Your task to perform on an android device: uninstall "Google Duo" Image 0: 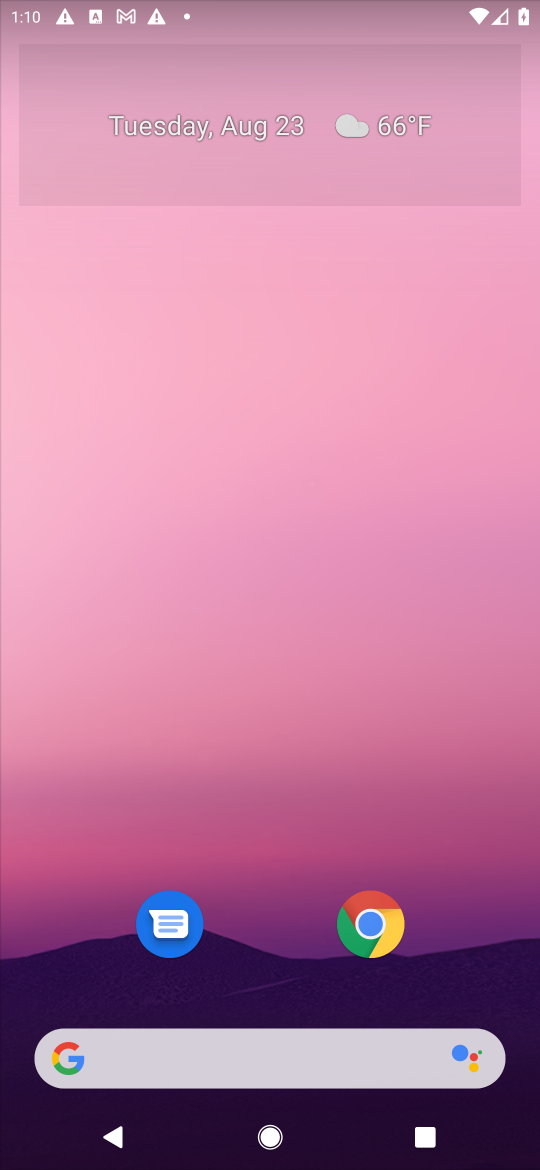
Step 0: press home button
Your task to perform on an android device: uninstall "Google Duo" Image 1: 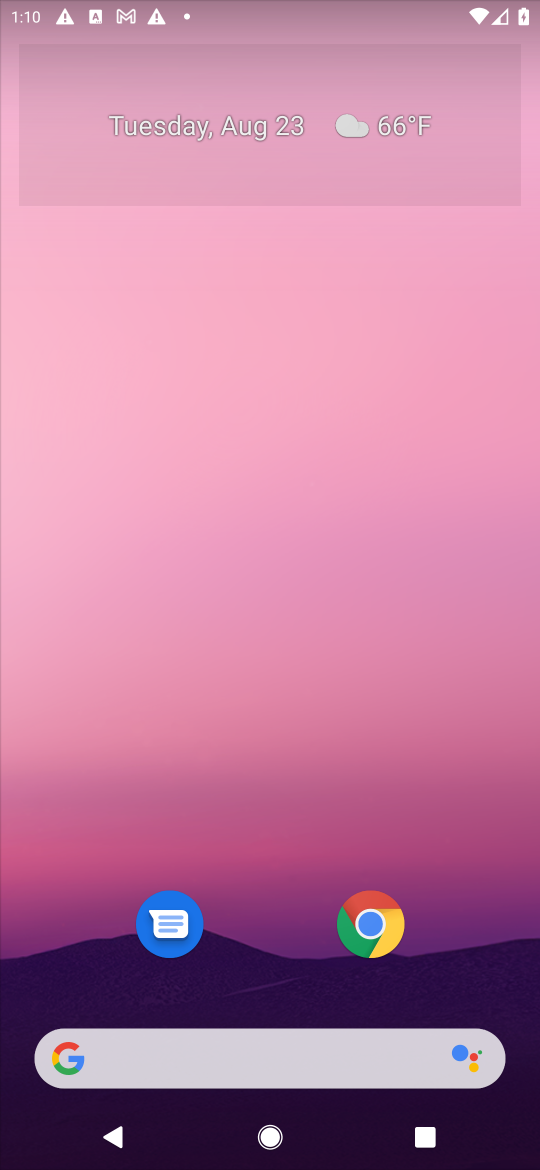
Step 1: drag from (462, 828) to (485, 114)
Your task to perform on an android device: uninstall "Google Duo" Image 2: 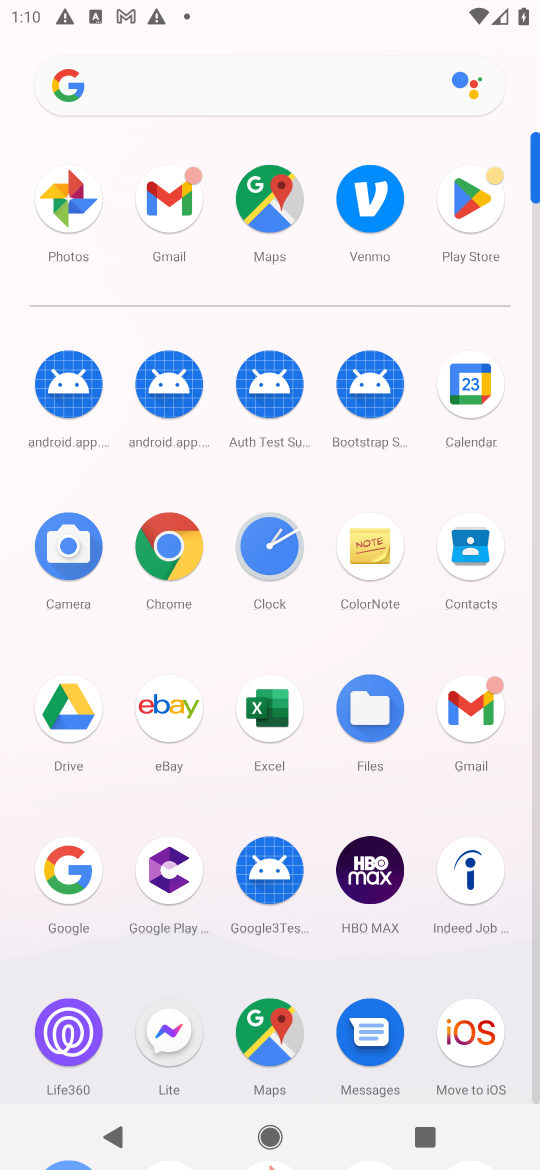
Step 2: click (474, 204)
Your task to perform on an android device: uninstall "Google Duo" Image 3: 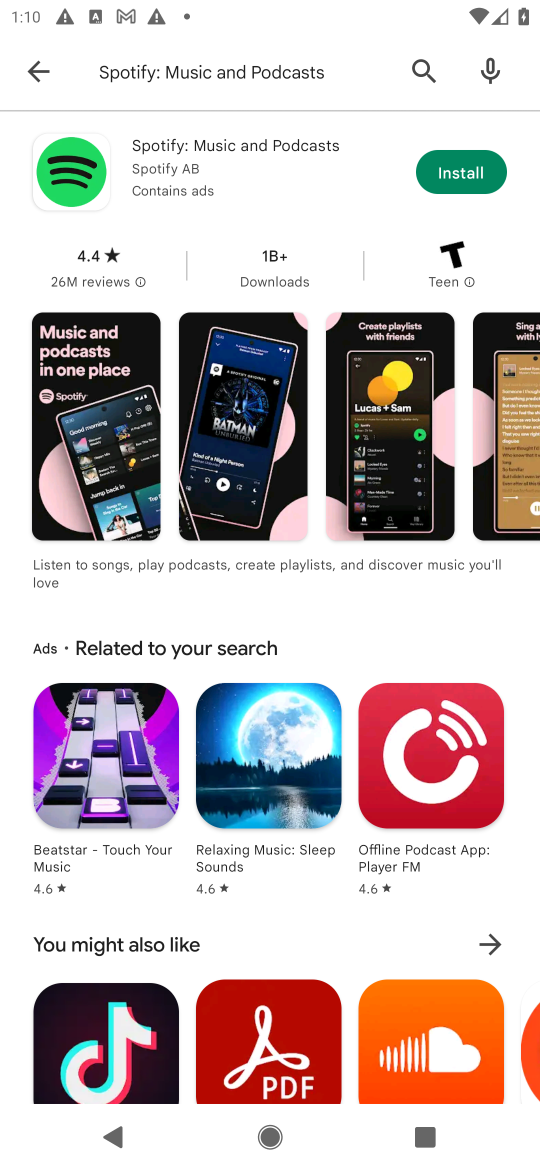
Step 3: press back button
Your task to perform on an android device: uninstall "Google Duo" Image 4: 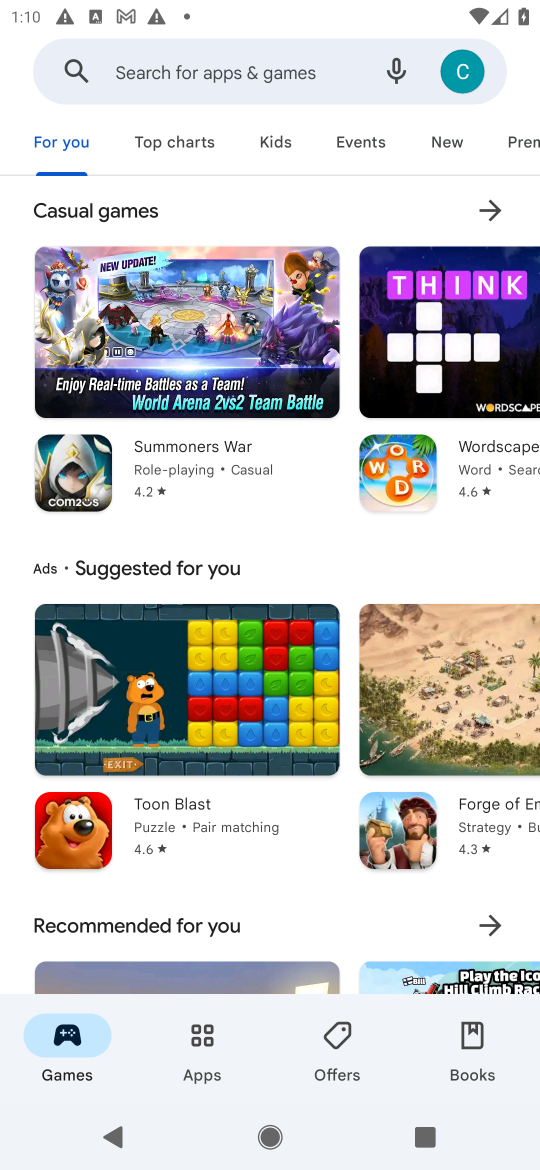
Step 4: click (166, 71)
Your task to perform on an android device: uninstall "Google Duo" Image 5: 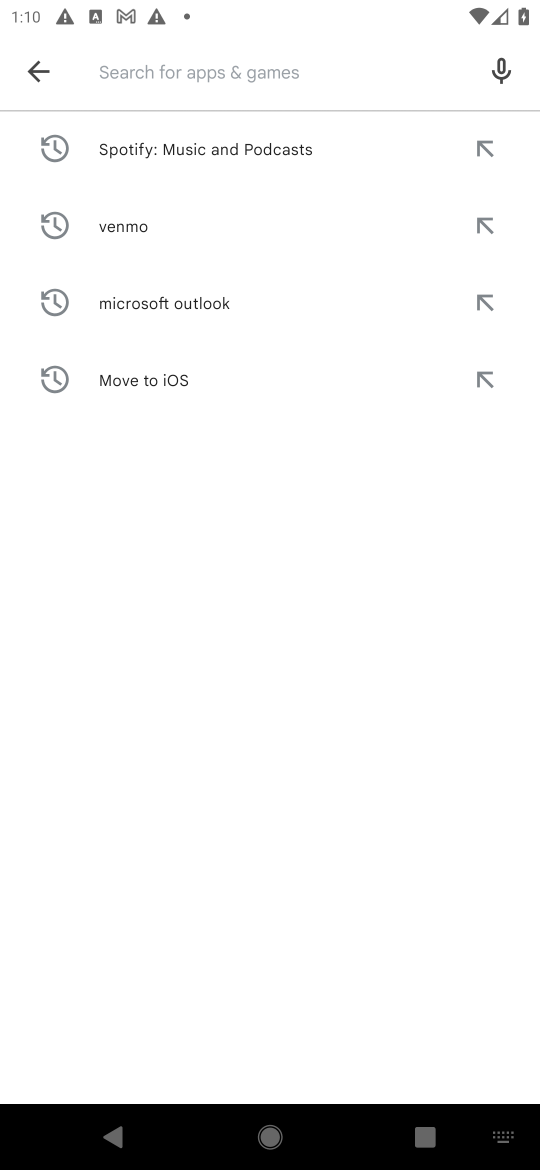
Step 5: press enter
Your task to perform on an android device: uninstall "Google Duo" Image 6: 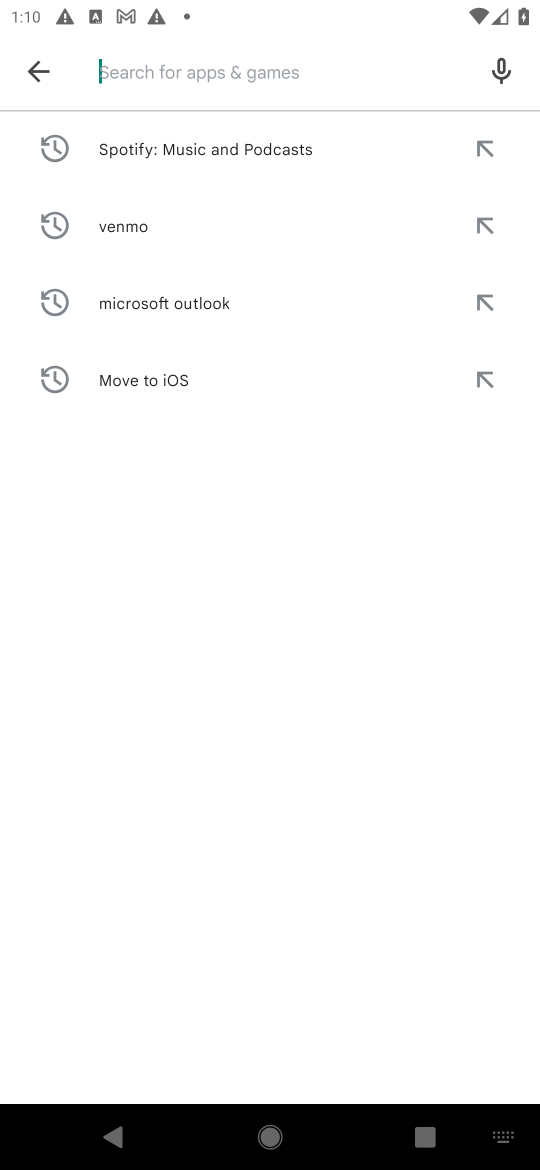
Step 6: type "Google Duo"
Your task to perform on an android device: uninstall "Google Duo" Image 7: 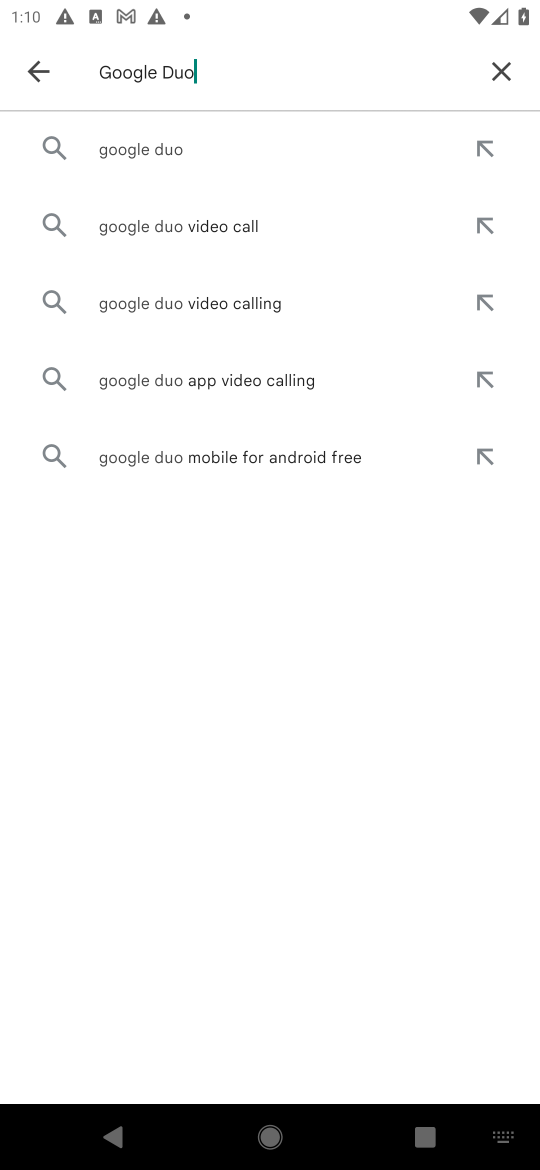
Step 7: click (150, 155)
Your task to perform on an android device: uninstall "Google Duo" Image 8: 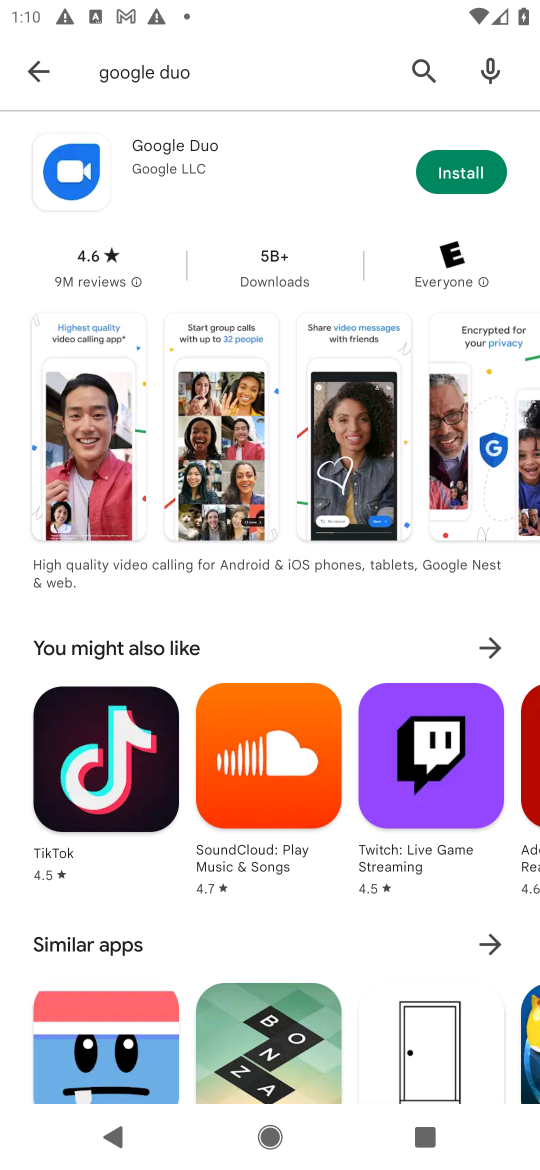
Step 8: task complete